Your task to perform on an android device: read, delete, or share a saved page in the chrome app Image 0: 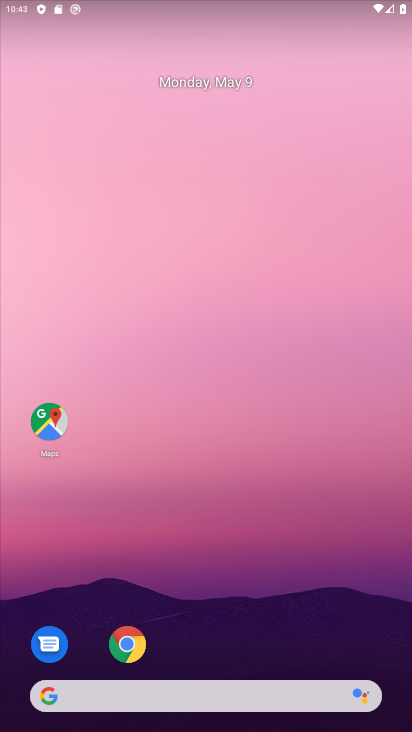
Step 0: click (126, 640)
Your task to perform on an android device: read, delete, or share a saved page in the chrome app Image 1: 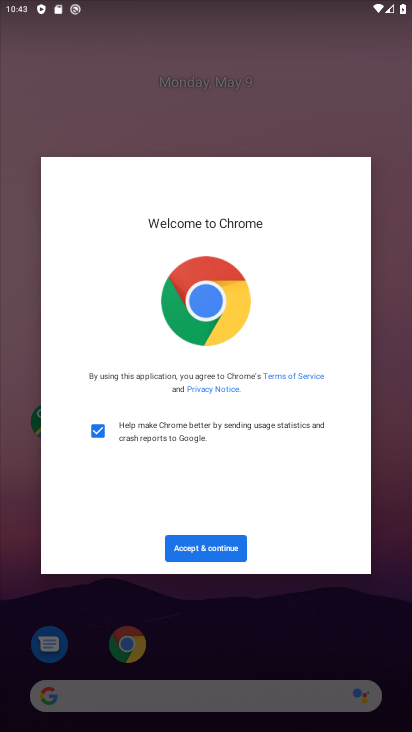
Step 1: click (205, 541)
Your task to perform on an android device: read, delete, or share a saved page in the chrome app Image 2: 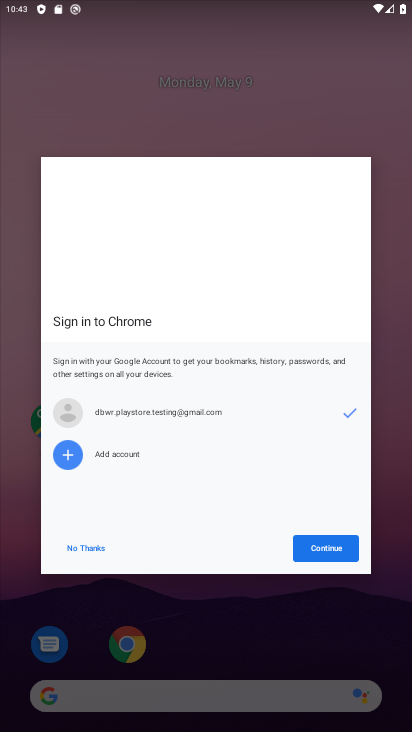
Step 2: click (341, 541)
Your task to perform on an android device: read, delete, or share a saved page in the chrome app Image 3: 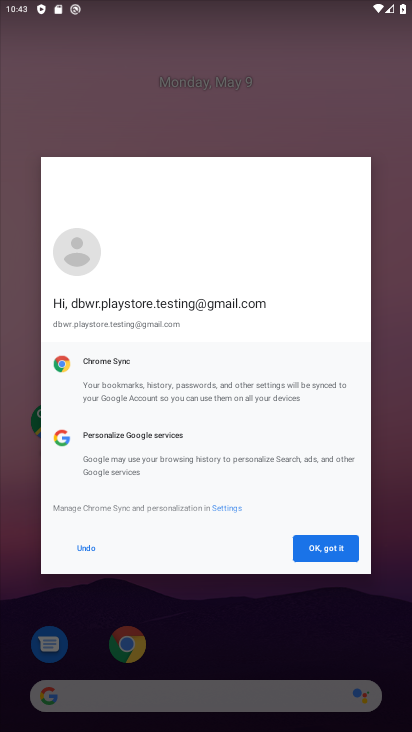
Step 3: click (341, 541)
Your task to perform on an android device: read, delete, or share a saved page in the chrome app Image 4: 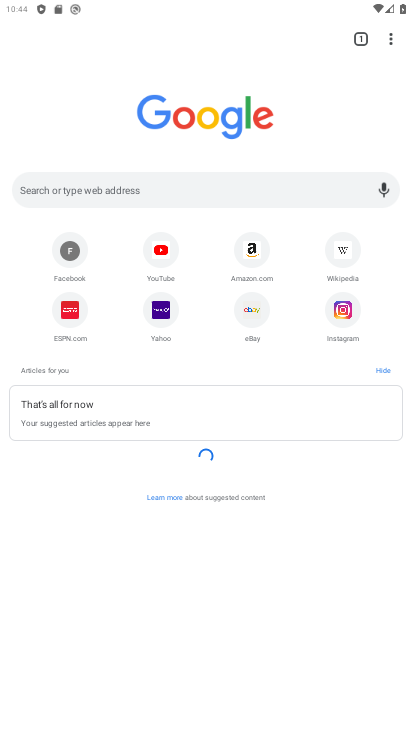
Step 4: click (391, 47)
Your task to perform on an android device: read, delete, or share a saved page in the chrome app Image 5: 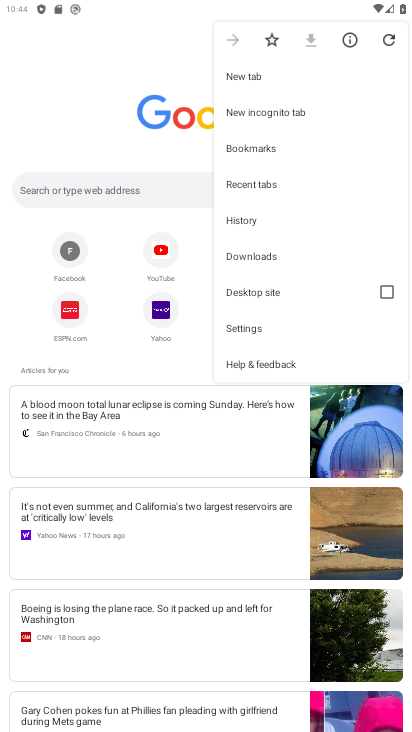
Step 5: click (257, 256)
Your task to perform on an android device: read, delete, or share a saved page in the chrome app Image 6: 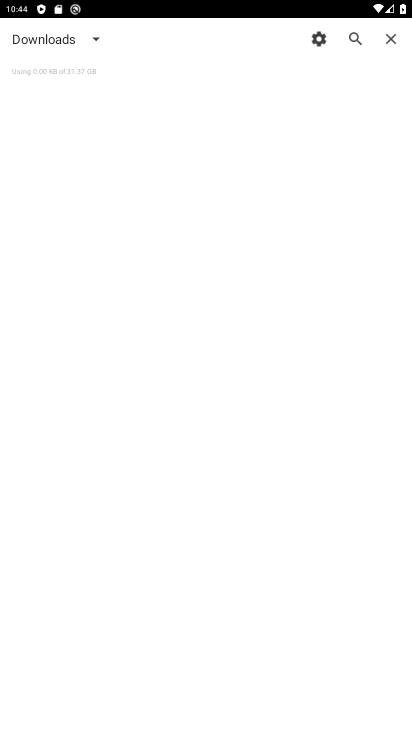
Step 6: task complete